Your task to perform on an android device: Open Yahoo.com Image 0: 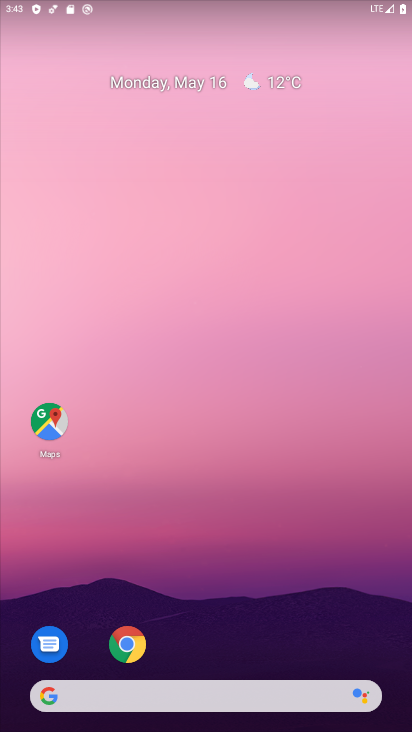
Step 0: click (129, 643)
Your task to perform on an android device: Open Yahoo.com Image 1: 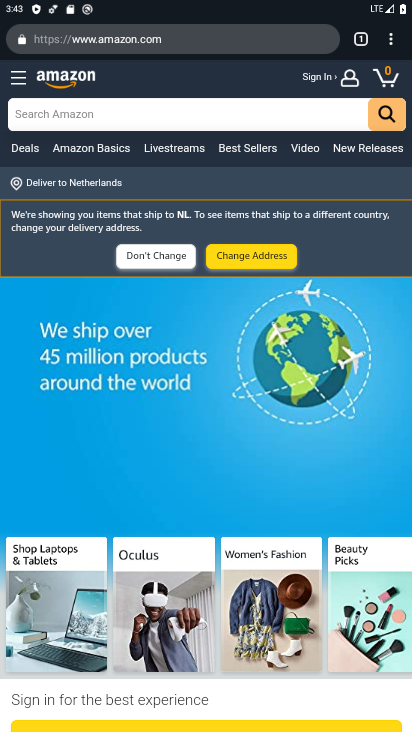
Step 1: click (358, 38)
Your task to perform on an android device: Open Yahoo.com Image 2: 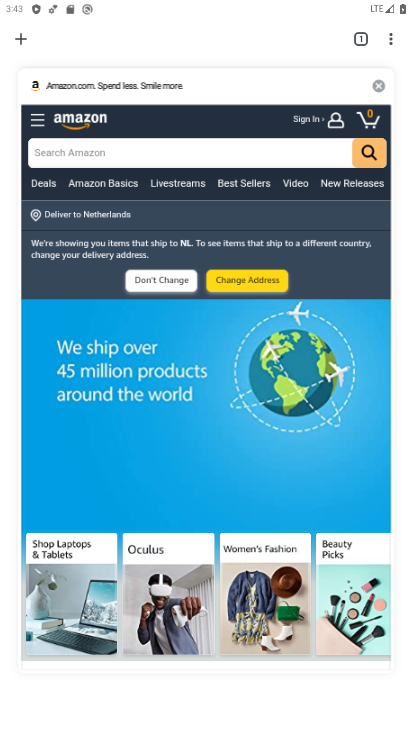
Step 2: click (23, 36)
Your task to perform on an android device: Open Yahoo.com Image 3: 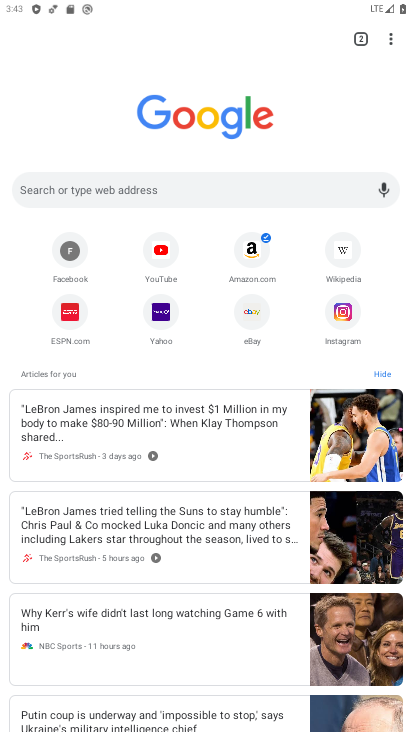
Step 3: click (172, 325)
Your task to perform on an android device: Open Yahoo.com Image 4: 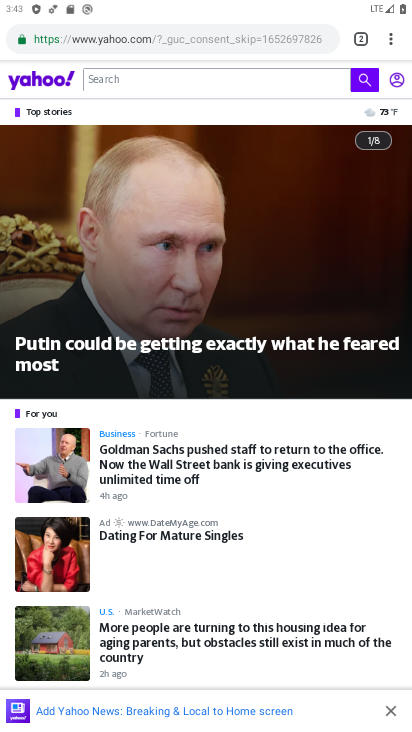
Step 4: task complete